Your task to perform on an android device: What's the weather going to be tomorrow? Image 0: 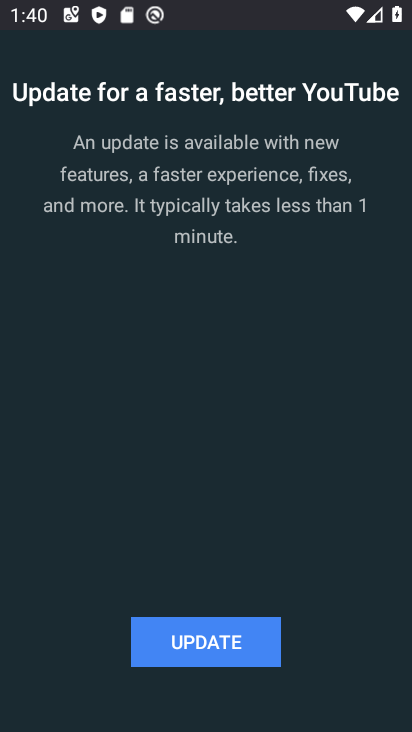
Step 0: press home button
Your task to perform on an android device: What's the weather going to be tomorrow? Image 1: 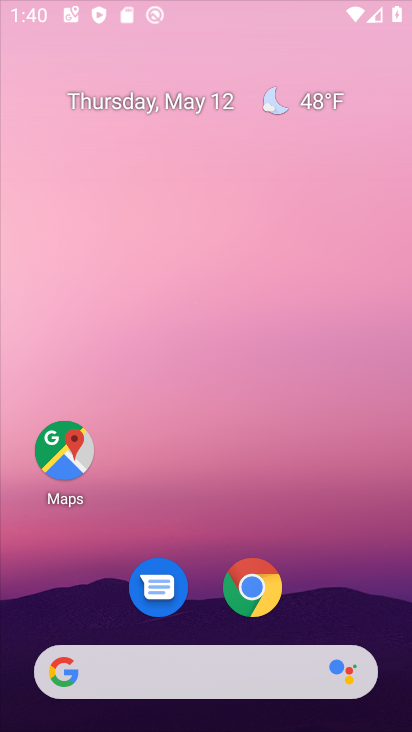
Step 1: drag from (249, 689) to (250, 395)
Your task to perform on an android device: What's the weather going to be tomorrow? Image 2: 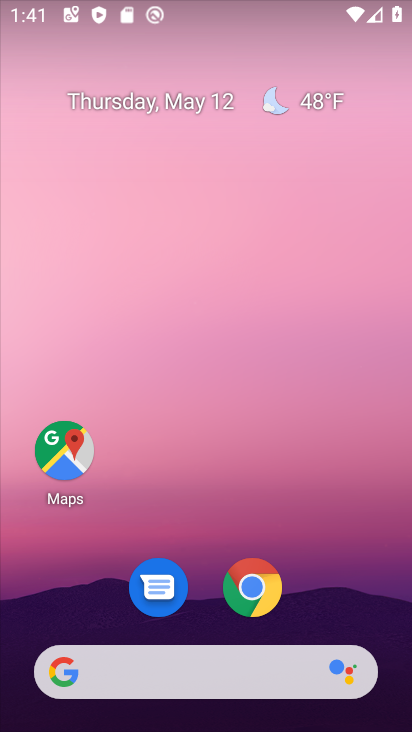
Step 2: drag from (145, 546) to (185, 63)
Your task to perform on an android device: What's the weather going to be tomorrow? Image 3: 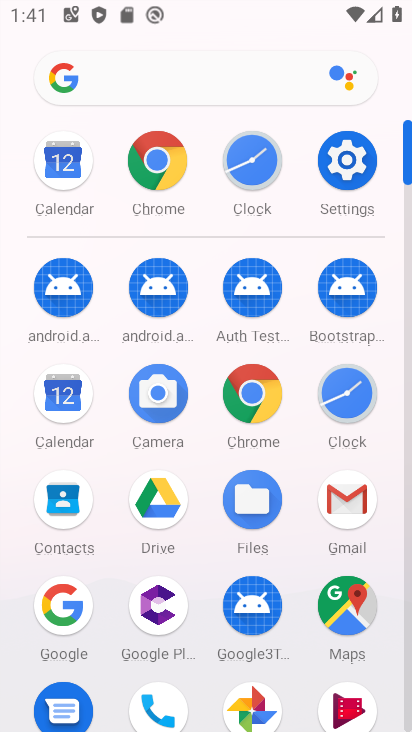
Step 3: click (64, 605)
Your task to perform on an android device: What's the weather going to be tomorrow? Image 4: 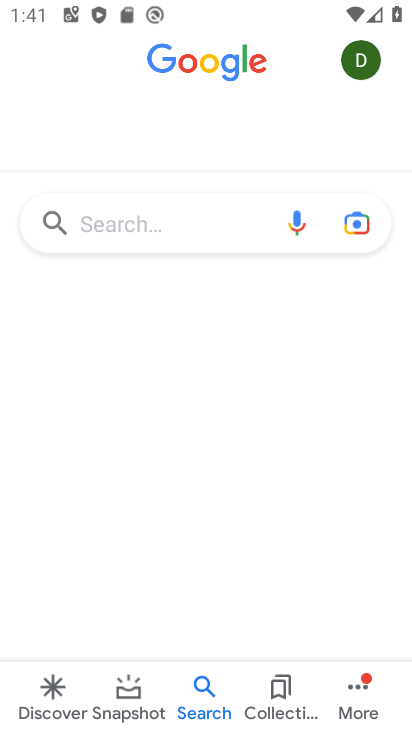
Step 4: click (108, 236)
Your task to perform on an android device: What's the weather going to be tomorrow? Image 5: 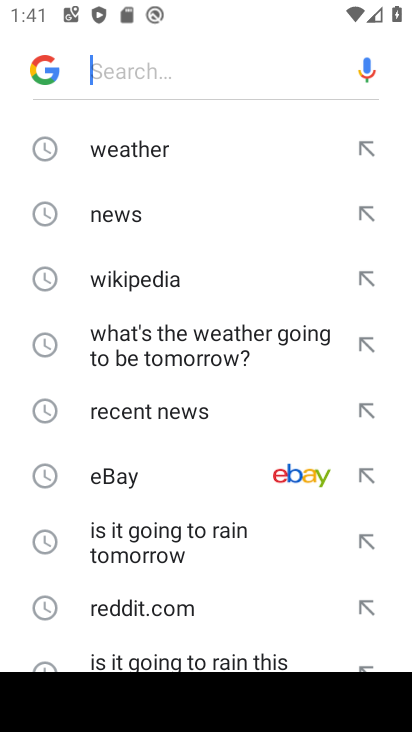
Step 5: click (147, 150)
Your task to perform on an android device: What's the weather going to be tomorrow? Image 6: 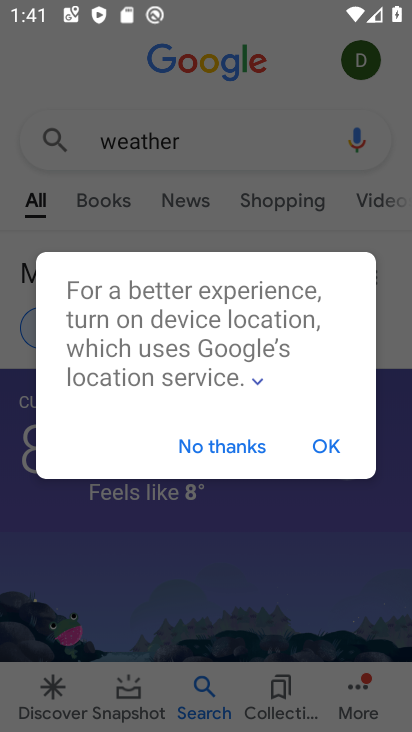
Step 6: click (331, 457)
Your task to perform on an android device: What's the weather going to be tomorrow? Image 7: 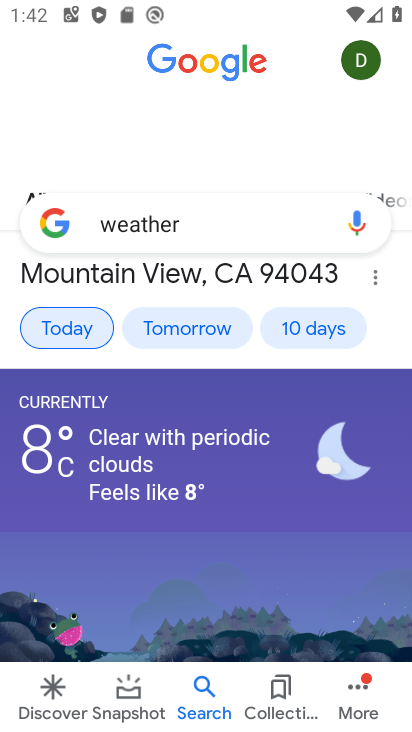
Step 7: click (179, 333)
Your task to perform on an android device: What's the weather going to be tomorrow? Image 8: 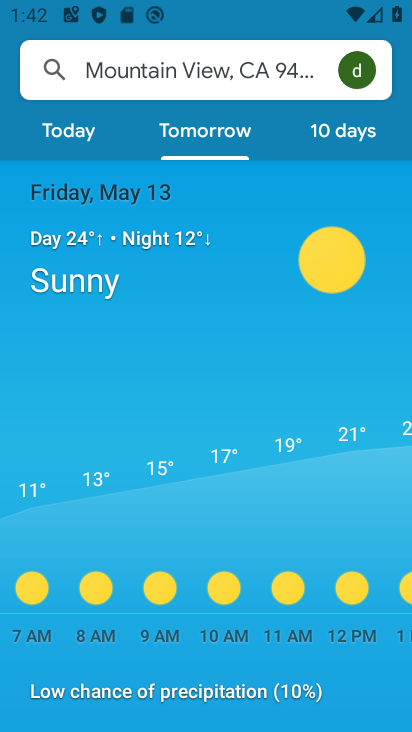
Step 8: task complete